Your task to perform on an android device: Open Chrome and go to the settings page Image 0: 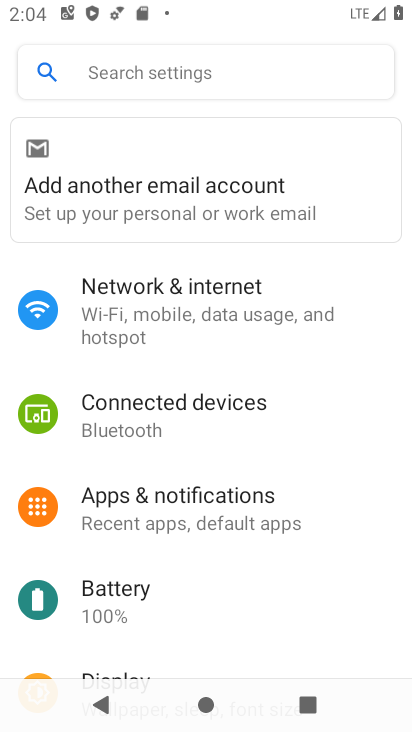
Step 0: press home button
Your task to perform on an android device: Open Chrome and go to the settings page Image 1: 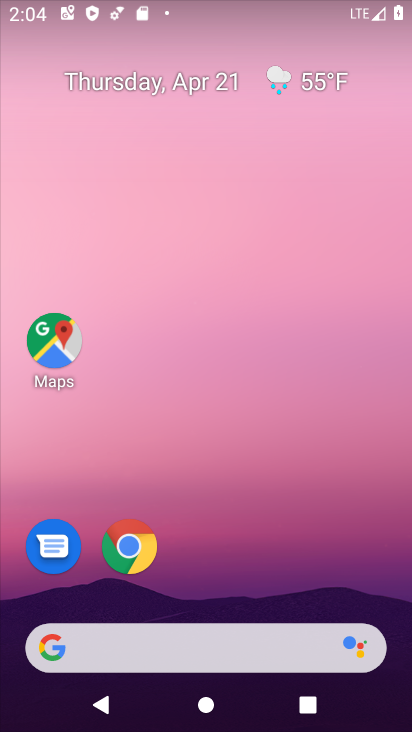
Step 1: click (142, 543)
Your task to perform on an android device: Open Chrome and go to the settings page Image 2: 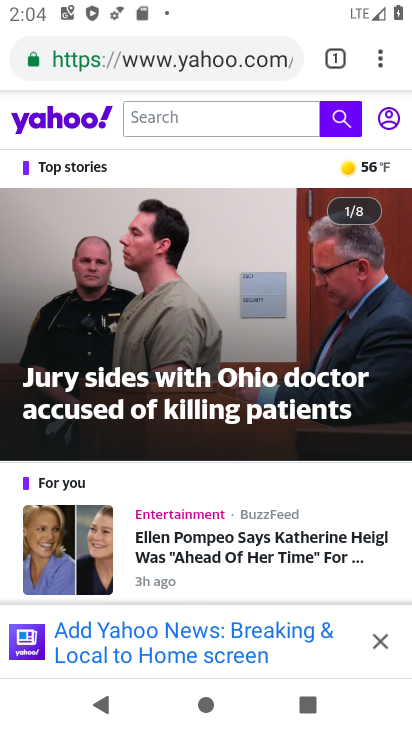
Step 2: click (382, 73)
Your task to perform on an android device: Open Chrome and go to the settings page Image 3: 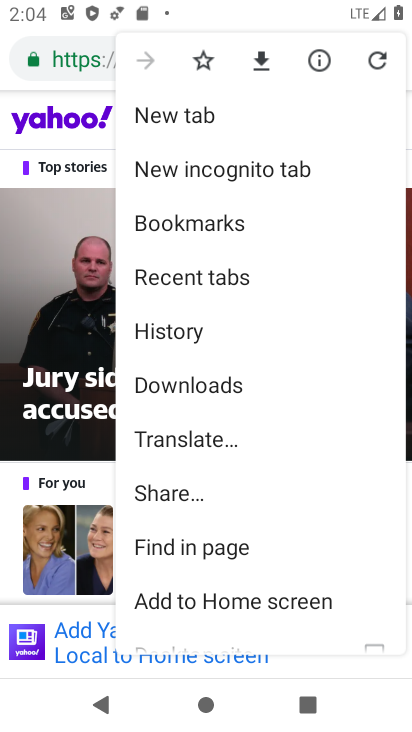
Step 3: drag from (182, 598) to (207, 202)
Your task to perform on an android device: Open Chrome and go to the settings page Image 4: 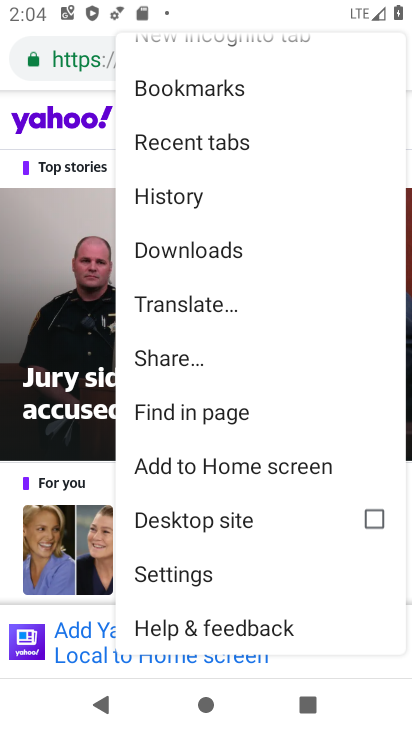
Step 4: click (167, 581)
Your task to perform on an android device: Open Chrome and go to the settings page Image 5: 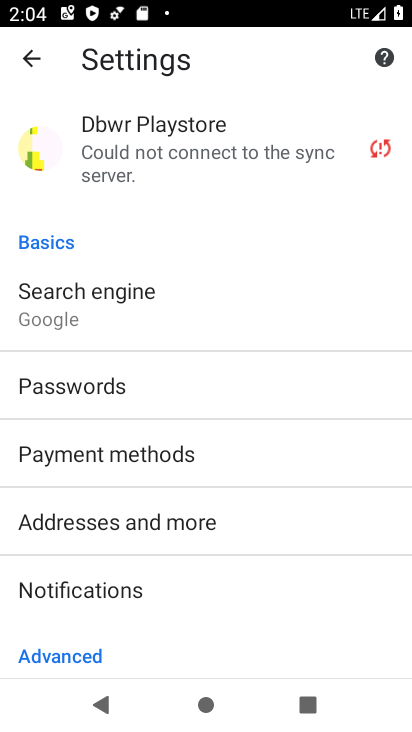
Step 5: task complete